Your task to perform on an android device: empty trash in google photos Image 0: 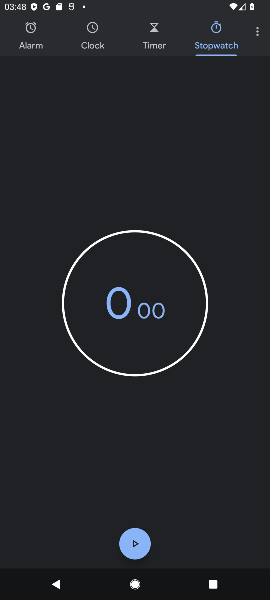
Step 0: press home button
Your task to perform on an android device: empty trash in google photos Image 1: 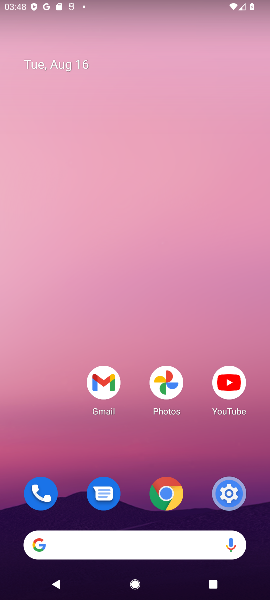
Step 1: drag from (67, 457) to (70, 143)
Your task to perform on an android device: empty trash in google photos Image 2: 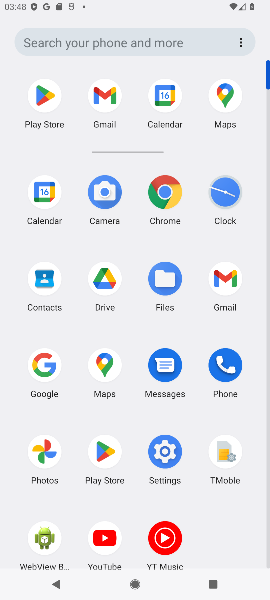
Step 2: click (41, 458)
Your task to perform on an android device: empty trash in google photos Image 3: 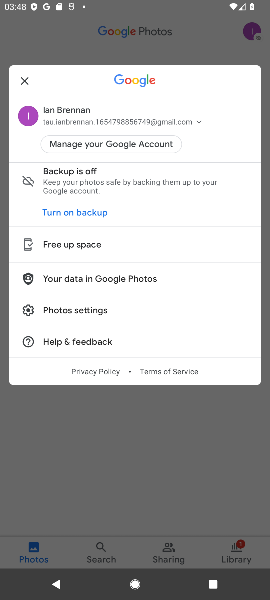
Step 3: press back button
Your task to perform on an android device: empty trash in google photos Image 4: 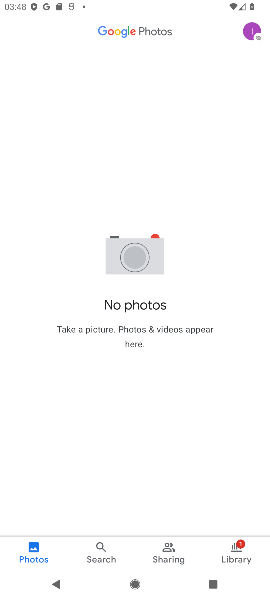
Step 4: click (233, 555)
Your task to perform on an android device: empty trash in google photos Image 5: 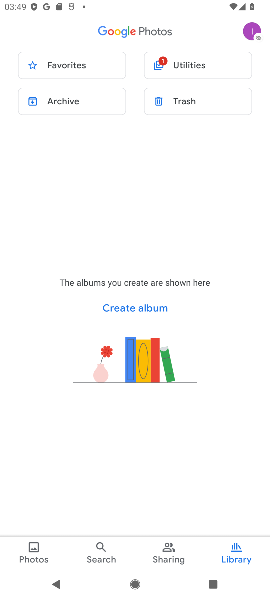
Step 5: click (196, 102)
Your task to perform on an android device: empty trash in google photos Image 6: 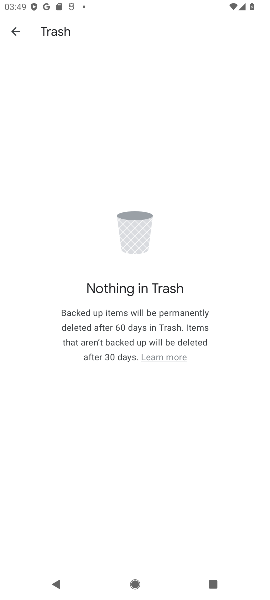
Step 6: task complete